Your task to perform on an android device: Go to ESPN.com Image 0: 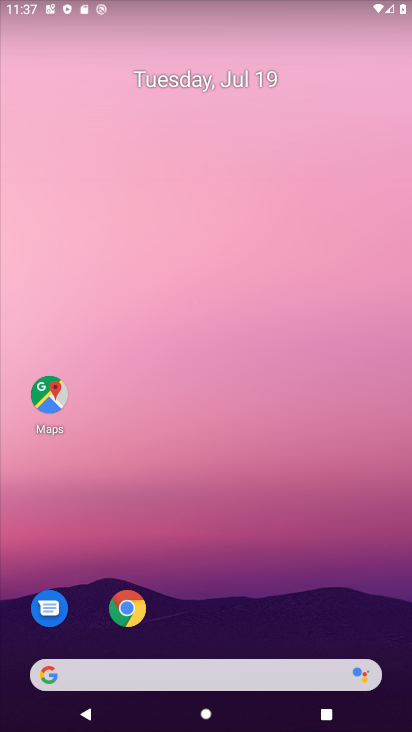
Step 0: drag from (202, 623) to (201, 9)
Your task to perform on an android device: Go to ESPN.com Image 1: 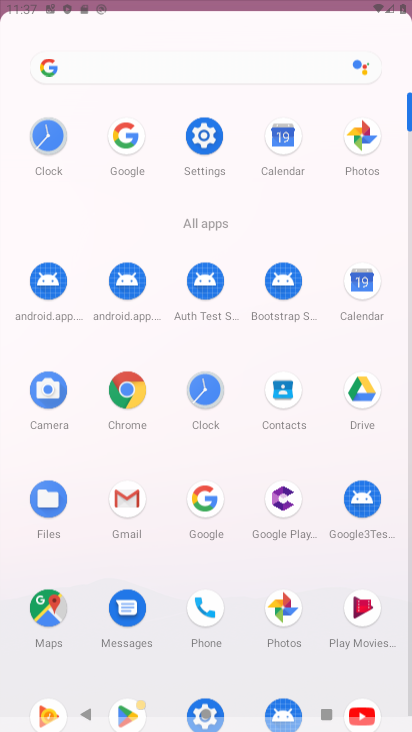
Step 1: click (209, 498)
Your task to perform on an android device: Go to ESPN.com Image 2: 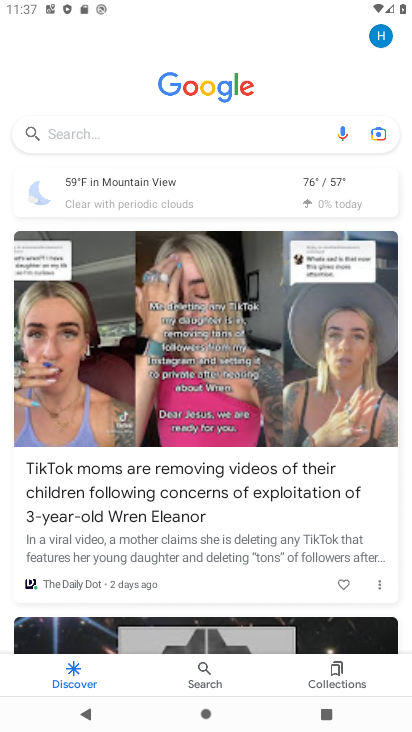
Step 2: click (144, 131)
Your task to perform on an android device: Go to ESPN.com Image 3: 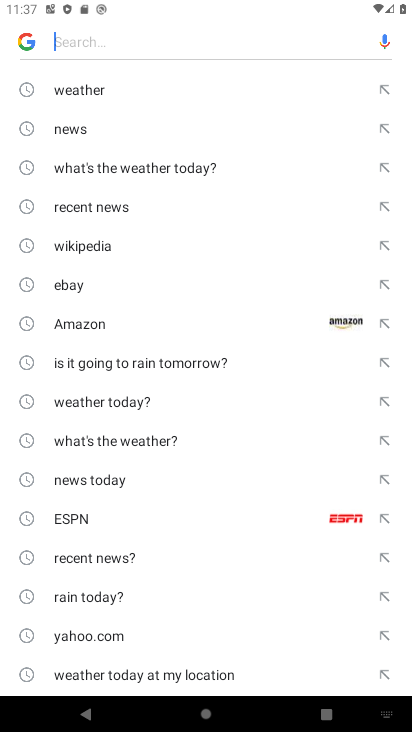
Step 3: type "espn.com"
Your task to perform on an android device: Go to ESPN.com Image 4: 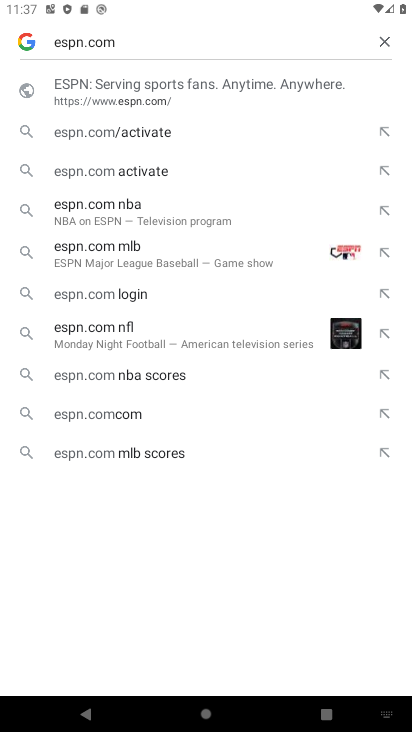
Step 4: click (151, 89)
Your task to perform on an android device: Go to ESPN.com Image 5: 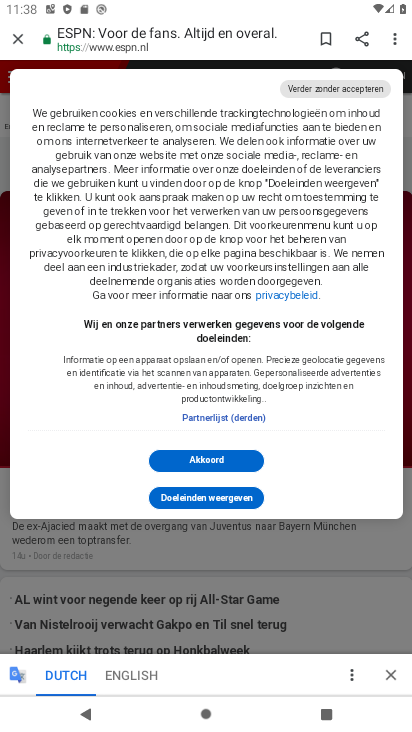
Step 5: task complete